Your task to perform on an android device: Open eBay Image 0: 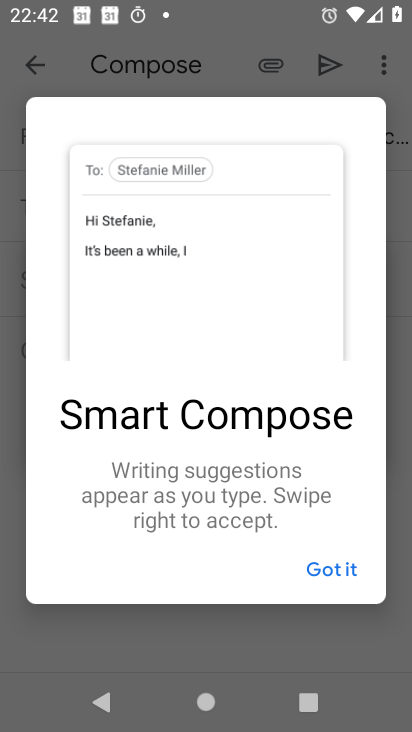
Step 0: press home button
Your task to perform on an android device: Open eBay Image 1: 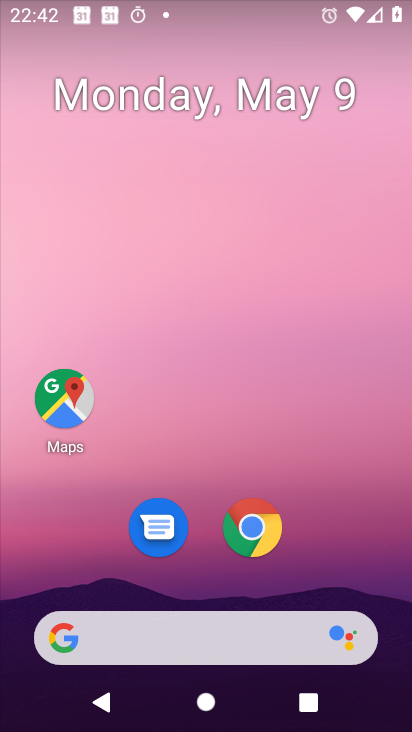
Step 1: drag from (200, 567) to (221, 99)
Your task to perform on an android device: Open eBay Image 2: 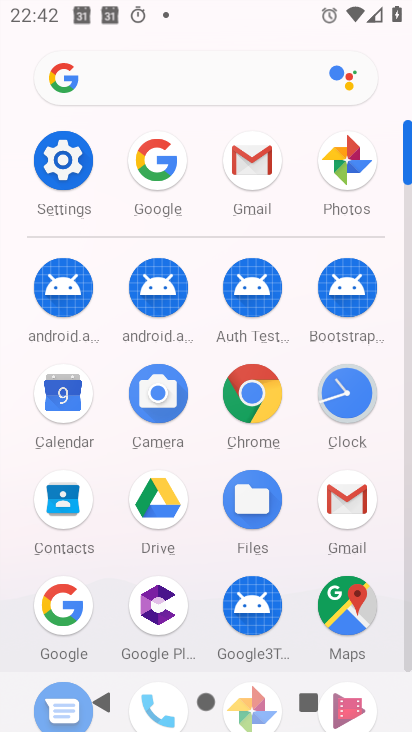
Step 2: click (60, 602)
Your task to perform on an android device: Open eBay Image 3: 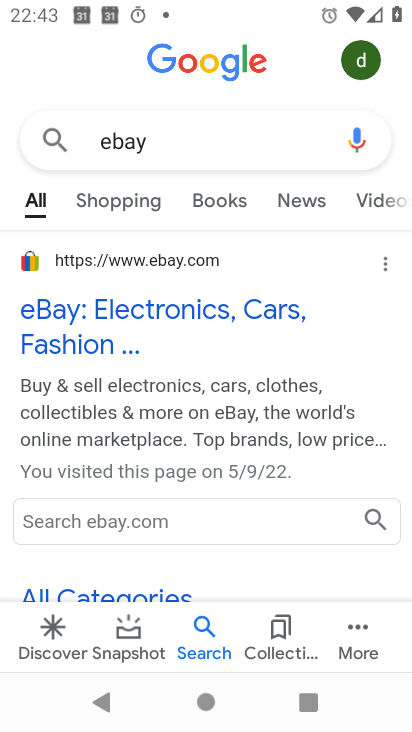
Step 3: task complete